Your task to perform on an android device: turn on sleep mode Image 0: 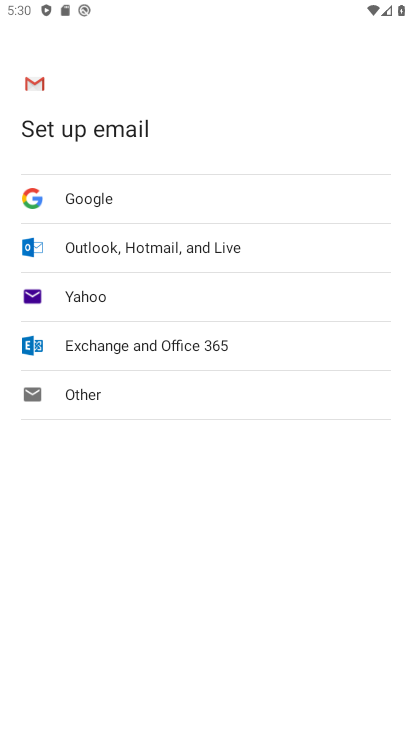
Step 0: press home button
Your task to perform on an android device: turn on sleep mode Image 1: 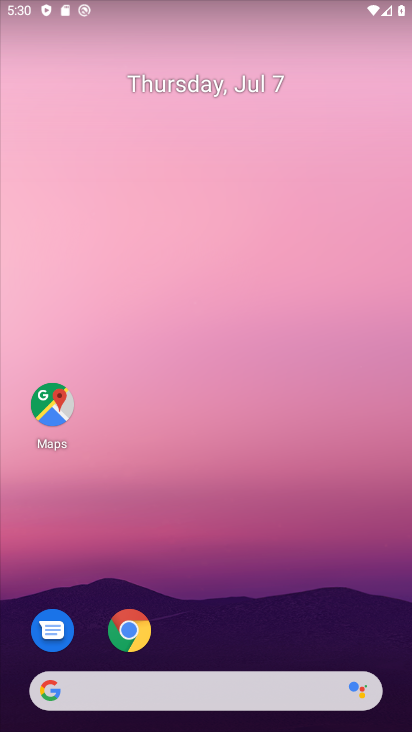
Step 1: drag from (211, 509) to (197, 63)
Your task to perform on an android device: turn on sleep mode Image 2: 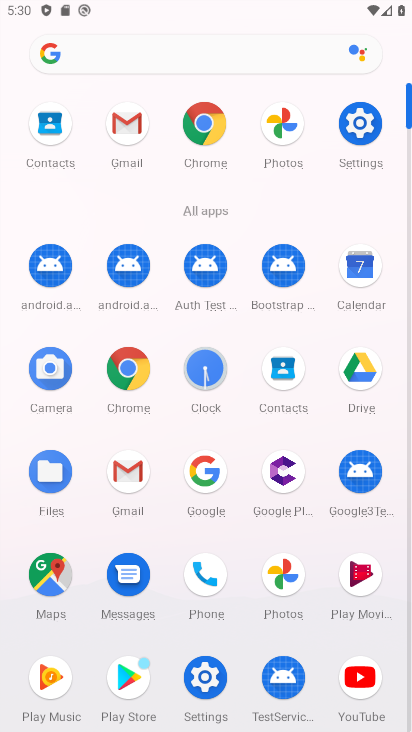
Step 2: click (359, 125)
Your task to perform on an android device: turn on sleep mode Image 3: 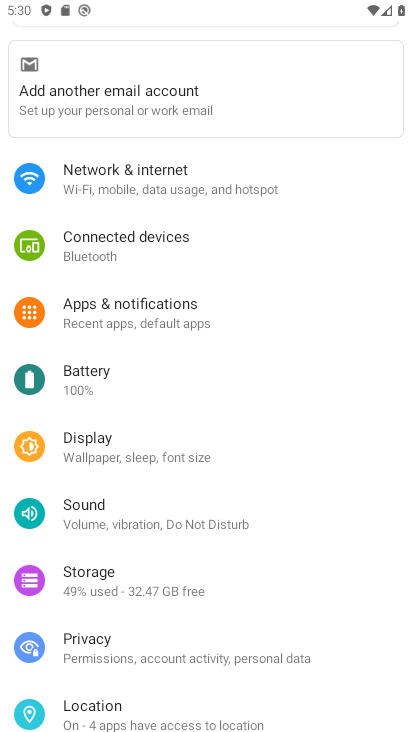
Step 3: task complete